Your task to perform on an android device: turn off location Image 0: 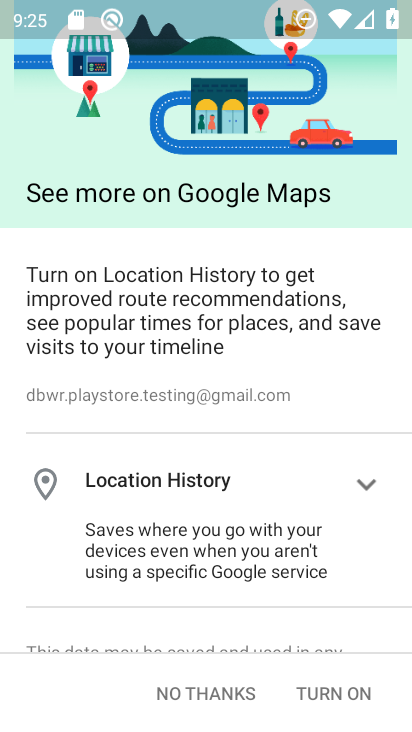
Step 0: press home button
Your task to perform on an android device: turn off location Image 1: 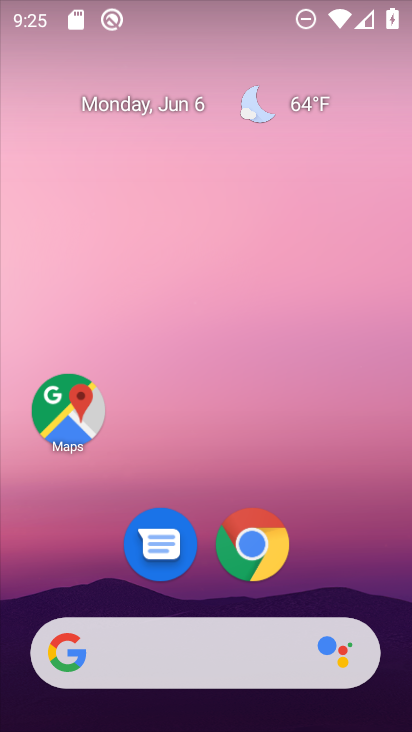
Step 1: drag from (405, 663) to (318, 181)
Your task to perform on an android device: turn off location Image 2: 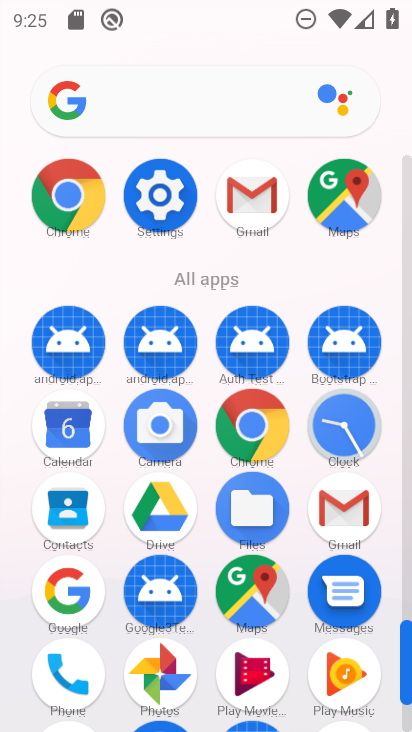
Step 2: click (408, 555)
Your task to perform on an android device: turn off location Image 3: 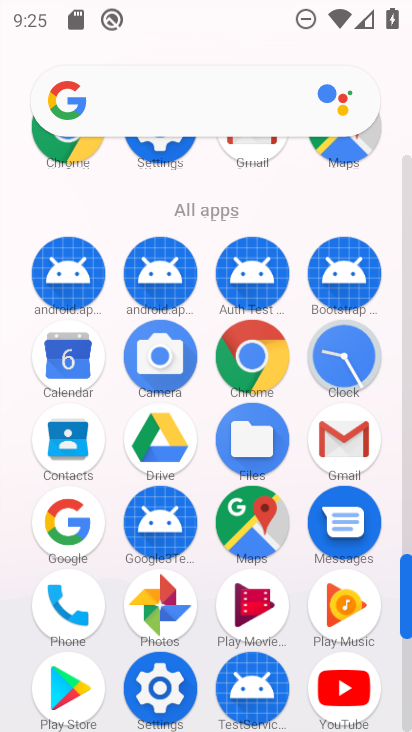
Step 3: click (154, 689)
Your task to perform on an android device: turn off location Image 4: 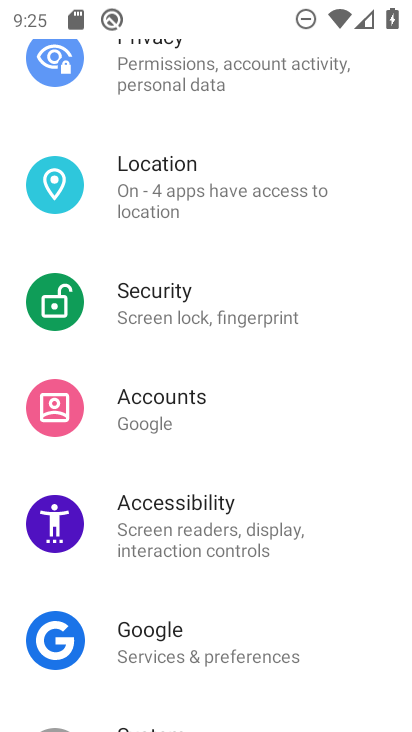
Step 4: click (205, 185)
Your task to perform on an android device: turn off location Image 5: 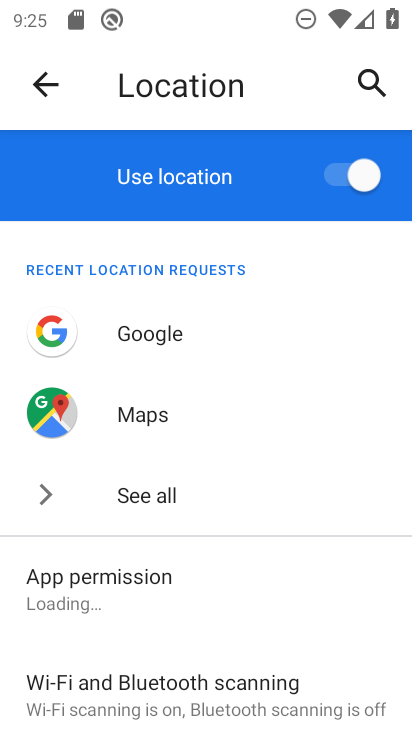
Step 5: click (328, 174)
Your task to perform on an android device: turn off location Image 6: 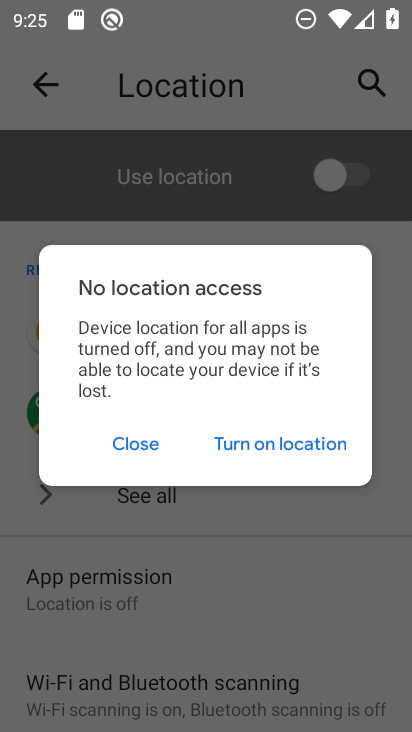
Step 6: click (138, 447)
Your task to perform on an android device: turn off location Image 7: 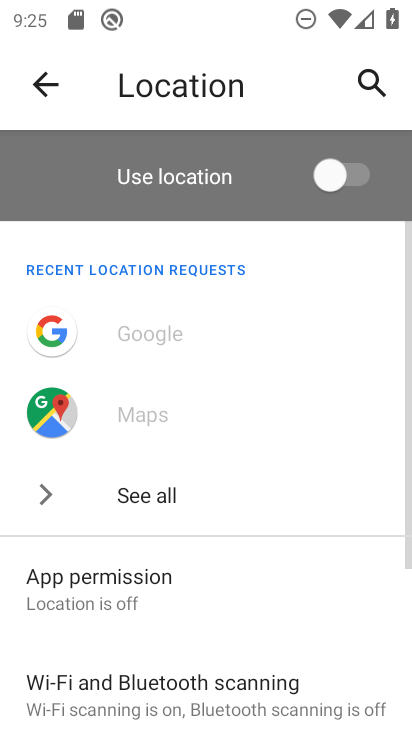
Step 7: task complete